Your task to perform on an android device: Open Google Image 0: 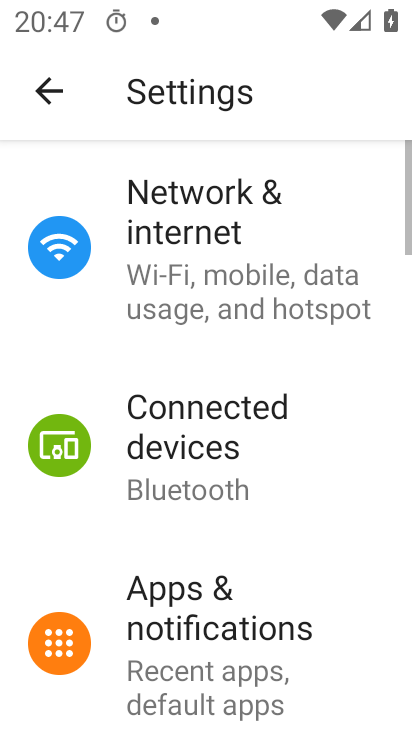
Step 0: drag from (189, 560) to (407, 338)
Your task to perform on an android device: Open Google Image 1: 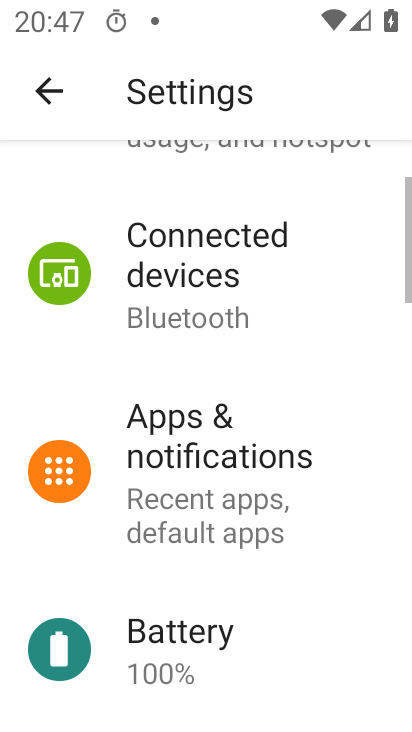
Step 1: press home button
Your task to perform on an android device: Open Google Image 2: 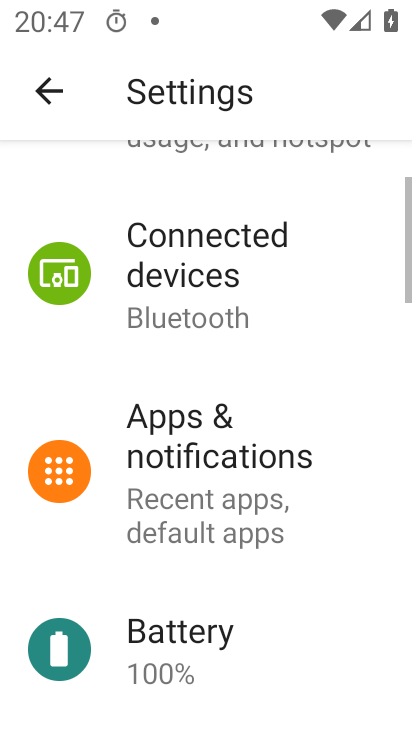
Step 2: click (363, 280)
Your task to perform on an android device: Open Google Image 3: 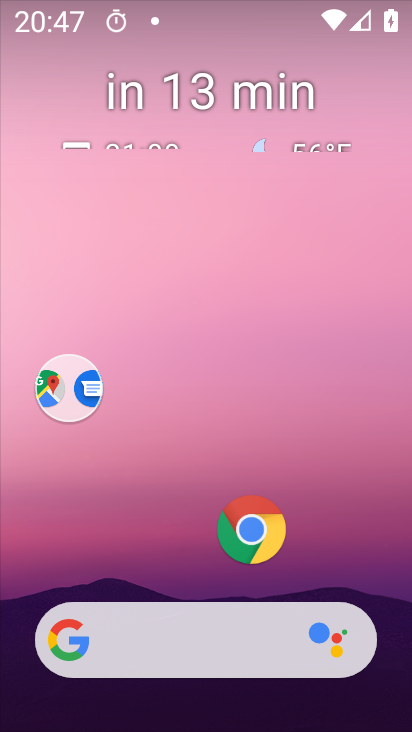
Step 3: drag from (144, 544) to (143, 40)
Your task to perform on an android device: Open Google Image 4: 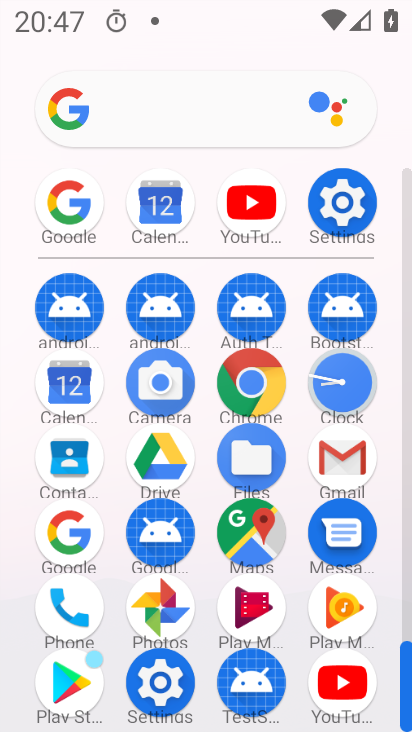
Step 4: click (74, 527)
Your task to perform on an android device: Open Google Image 5: 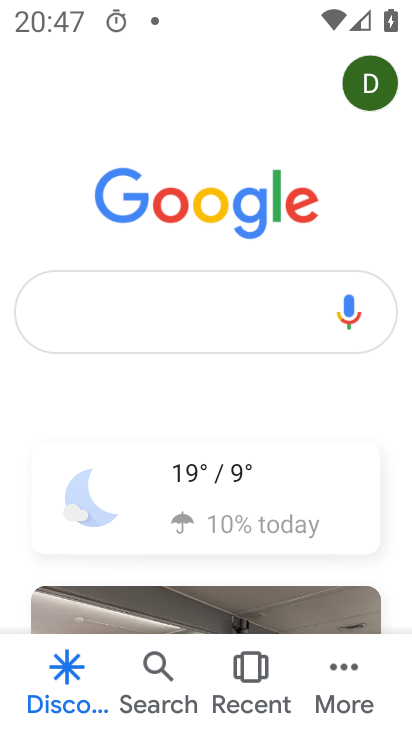
Step 5: task complete